Your task to perform on an android device: add a label to a message in the gmail app Image 0: 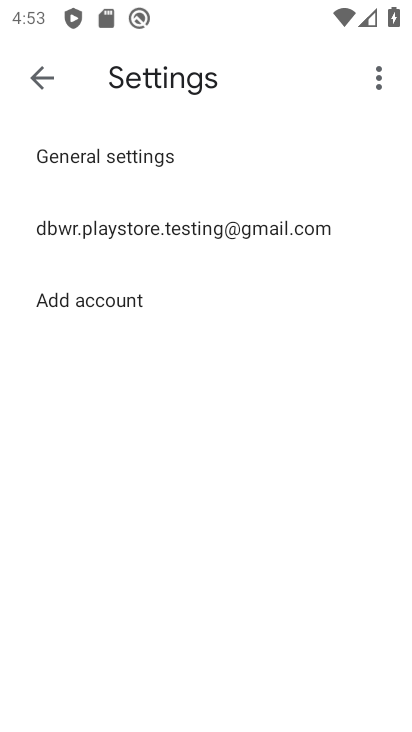
Step 0: press home button
Your task to perform on an android device: add a label to a message in the gmail app Image 1: 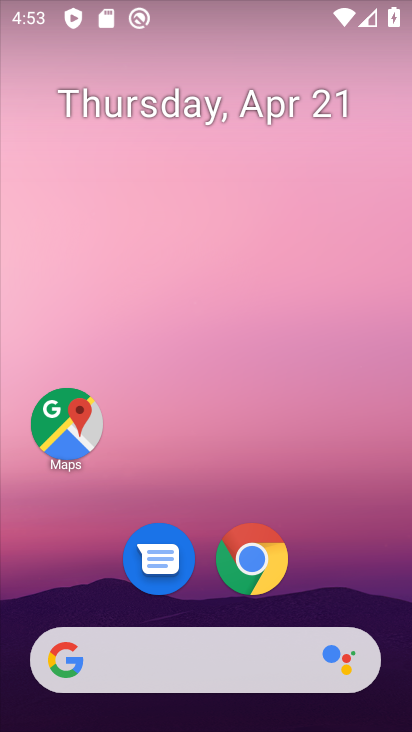
Step 1: drag from (331, 578) to (345, 112)
Your task to perform on an android device: add a label to a message in the gmail app Image 2: 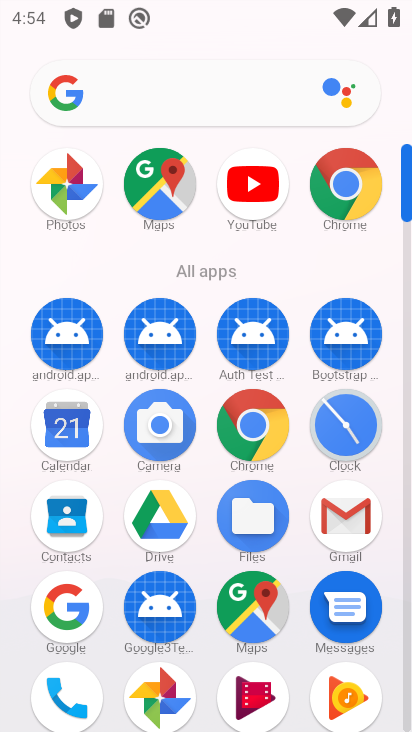
Step 2: click (349, 511)
Your task to perform on an android device: add a label to a message in the gmail app Image 3: 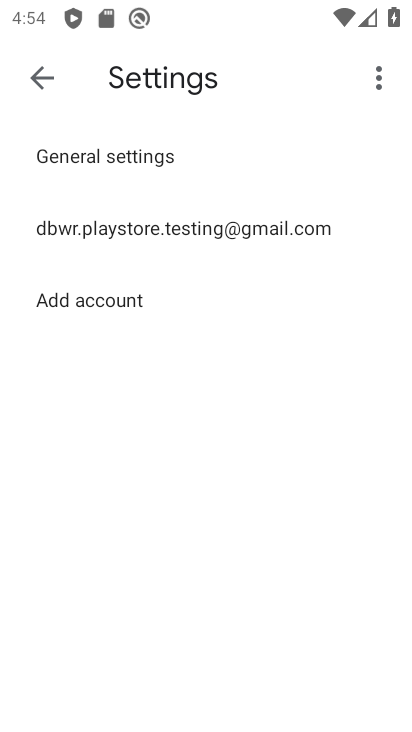
Step 3: click (129, 230)
Your task to perform on an android device: add a label to a message in the gmail app Image 4: 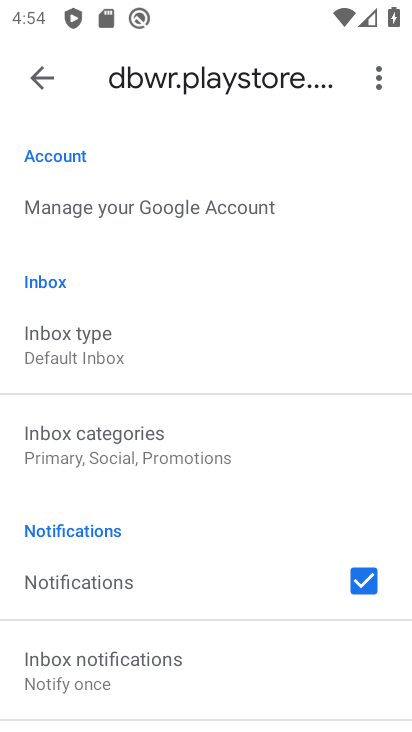
Step 4: click (47, 92)
Your task to perform on an android device: add a label to a message in the gmail app Image 5: 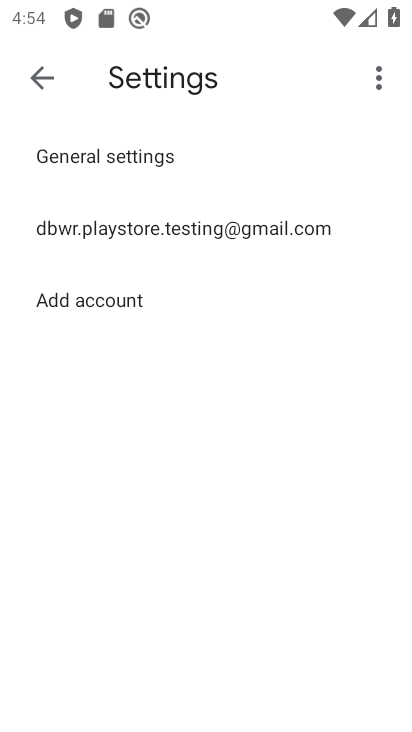
Step 5: click (61, 96)
Your task to perform on an android device: add a label to a message in the gmail app Image 6: 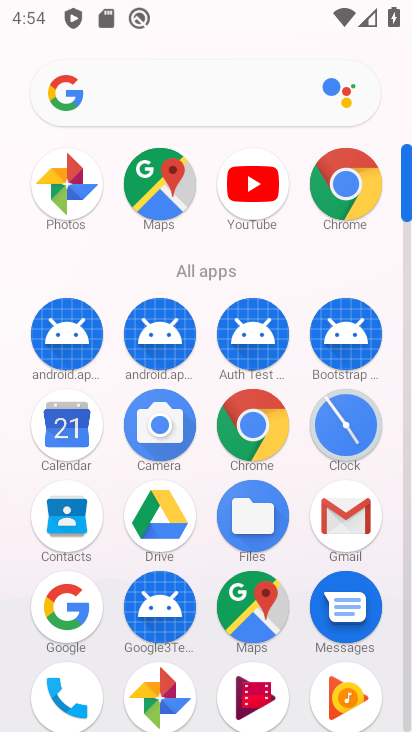
Step 6: click (348, 521)
Your task to perform on an android device: add a label to a message in the gmail app Image 7: 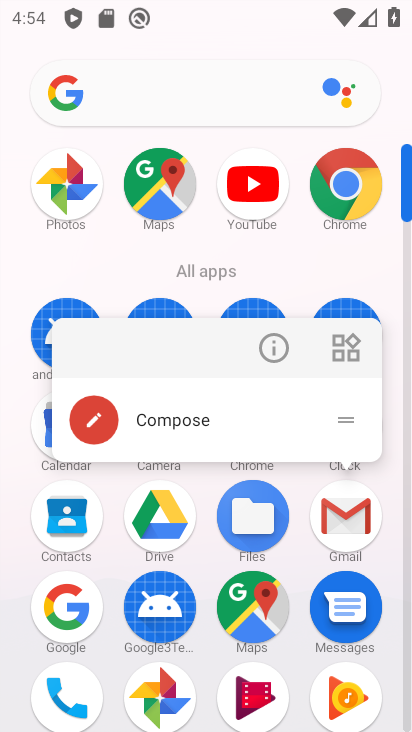
Step 7: click (349, 518)
Your task to perform on an android device: add a label to a message in the gmail app Image 8: 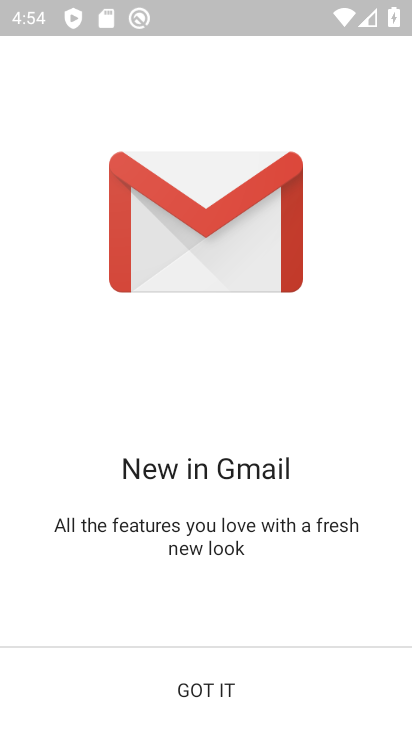
Step 8: click (220, 681)
Your task to perform on an android device: add a label to a message in the gmail app Image 9: 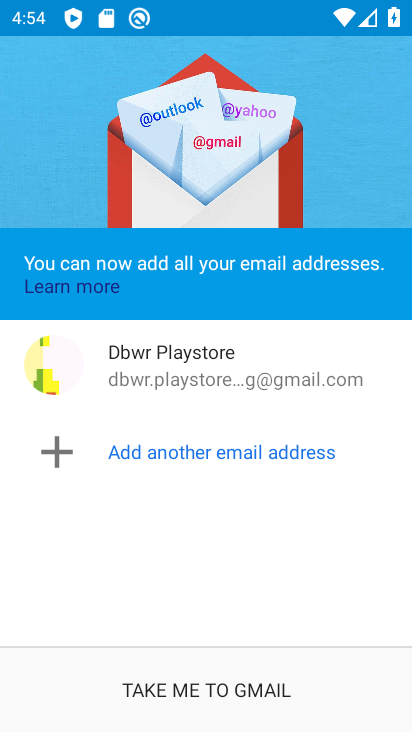
Step 9: click (220, 678)
Your task to perform on an android device: add a label to a message in the gmail app Image 10: 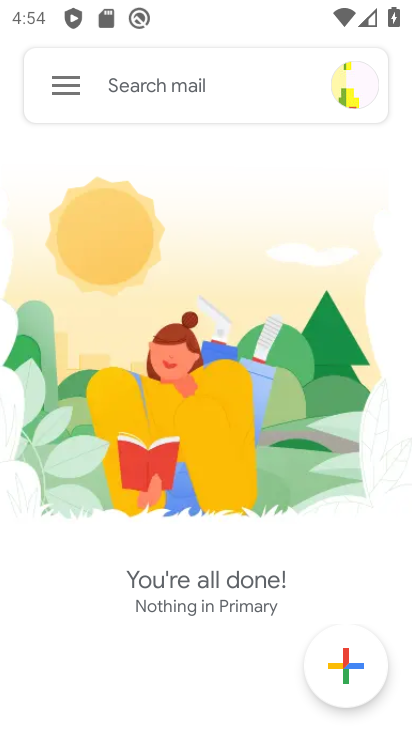
Step 10: click (84, 78)
Your task to perform on an android device: add a label to a message in the gmail app Image 11: 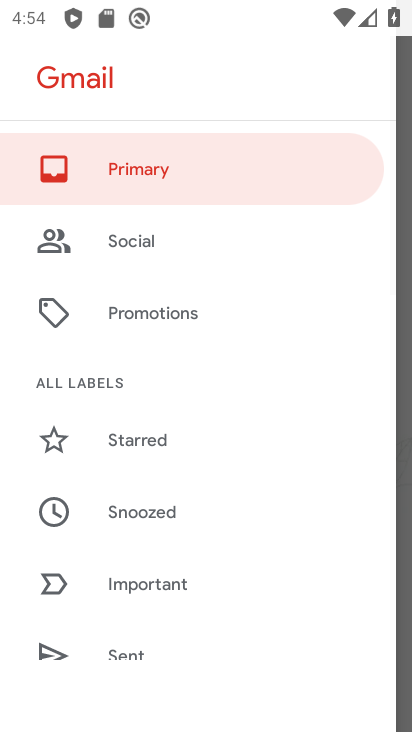
Step 11: drag from (228, 491) to (276, 221)
Your task to perform on an android device: add a label to a message in the gmail app Image 12: 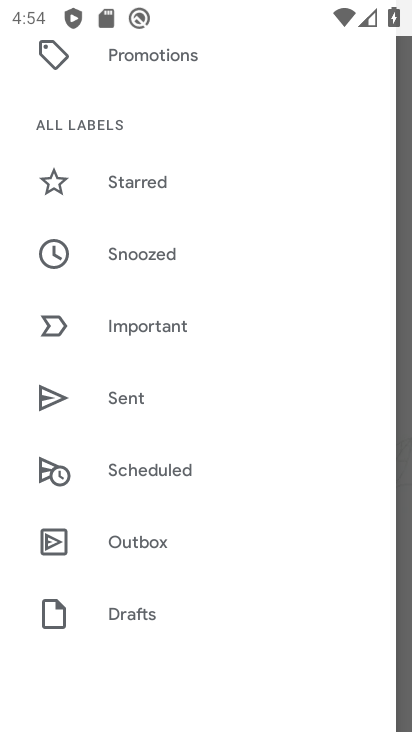
Step 12: drag from (253, 553) to (264, 264)
Your task to perform on an android device: add a label to a message in the gmail app Image 13: 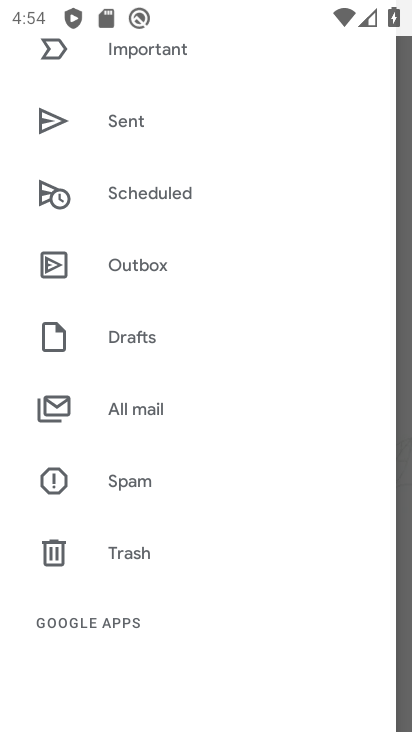
Step 13: drag from (262, 466) to (305, 239)
Your task to perform on an android device: add a label to a message in the gmail app Image 14: 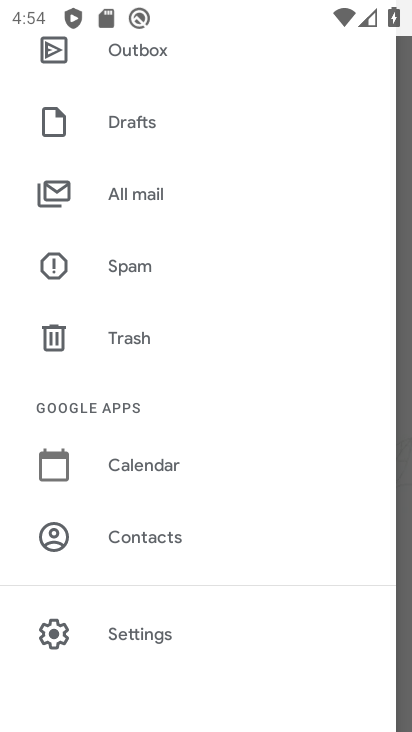
Step 14: drag from (188, 559) to (257, 163)
Your task to perform on an android device: add a label to a message in the gmail app Image 15: 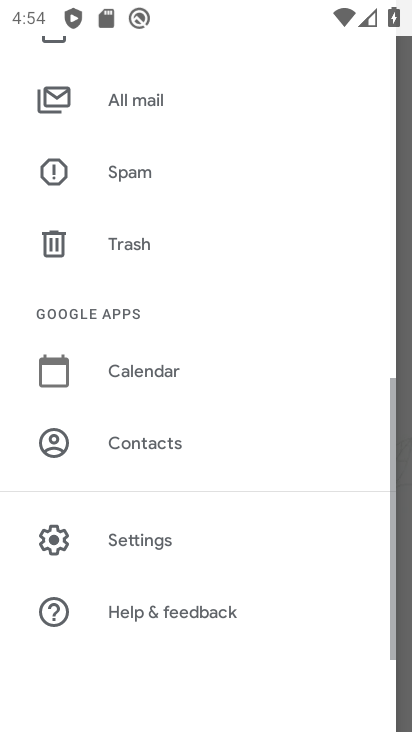
Step 15: drag from (256, 165) to (200, 530)
Your task to perform on an android device: add a label to a message in the gmail app Image 16: 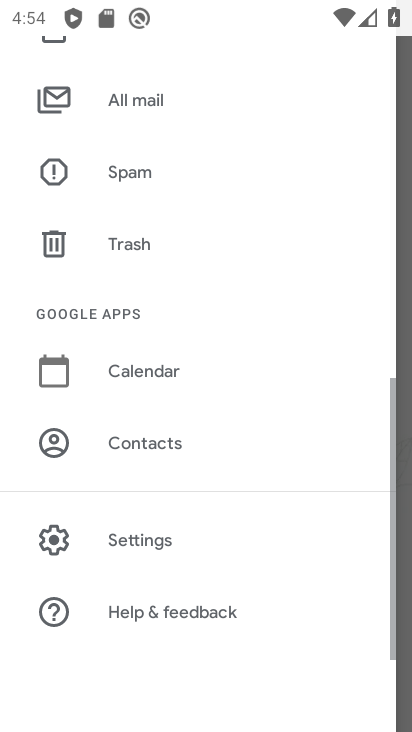
Step 16: drag from (175, 289) to (178, 573)
Your task to perform on an android device: add a label to a message in the gmail app Image 17: 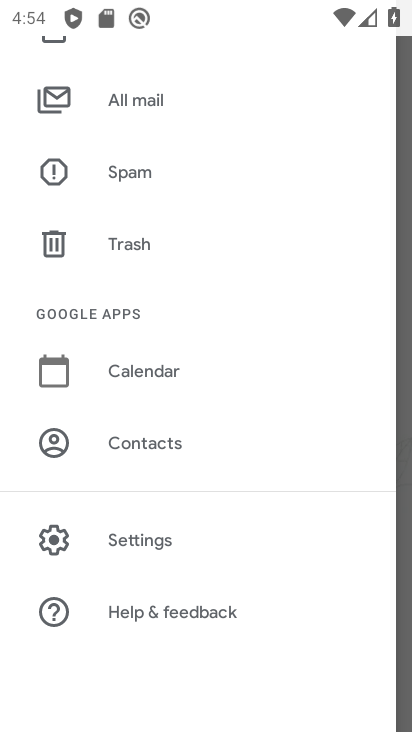
Step 17: drag from (180, 132) to (134, 602)
Your task to perform on an android device: add a label to a message in the gmail app Image 18: 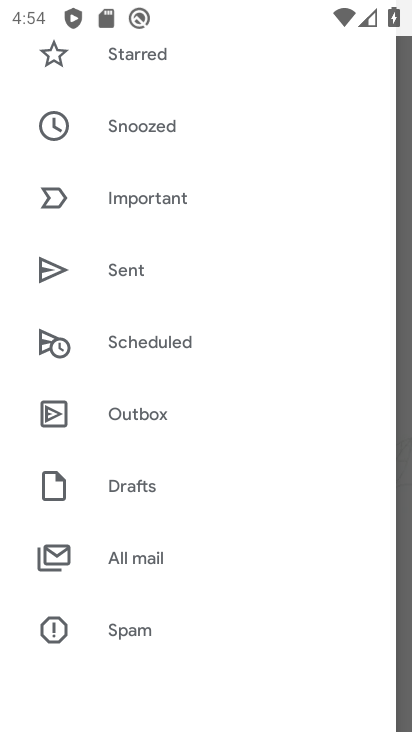
Step 18: click (120, 567)
Your task to perform on an android device: add a label to a message in the gmail app Image 19: 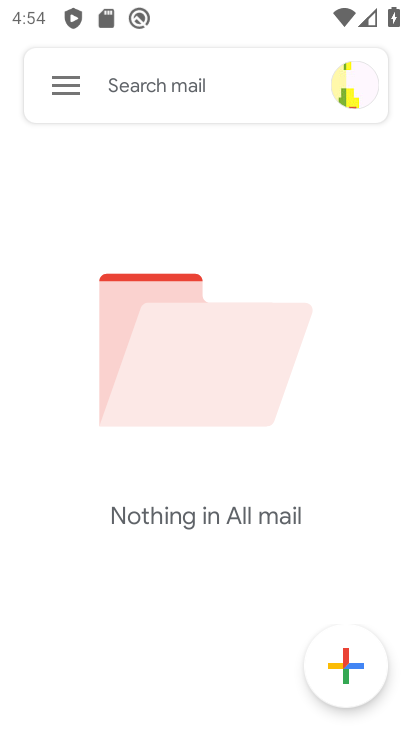
Step 19: task complete